Your task to perform on an android device: Is it going to rain this weekend? Image 0: 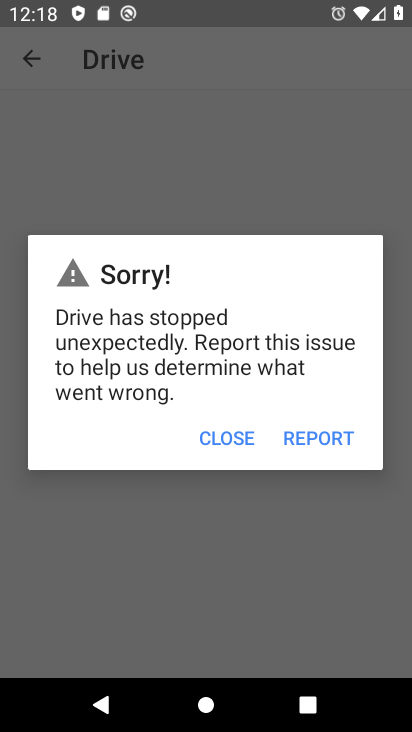
Step 0: press home button
Your task to perform on an android device: Is it going to rain this weekend? Image 1: 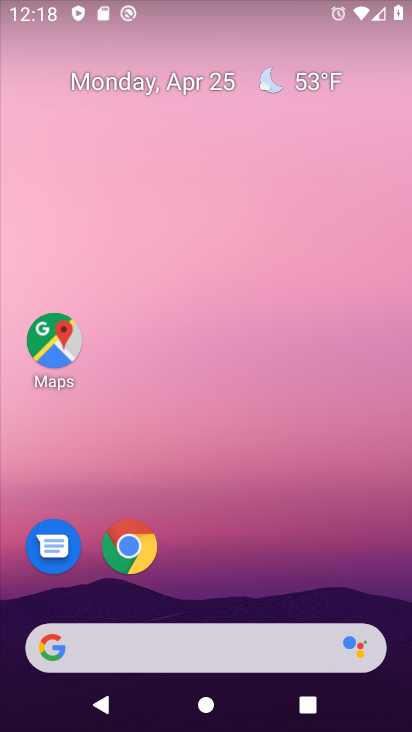
Step 1: drag from (208, 604) to (212, 182)
Your task to perform on an android device: Is it going to rain this weekend? Image 2: 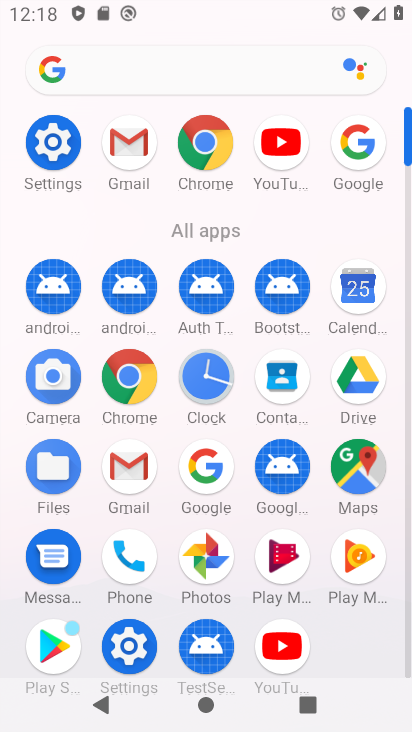
Step 2: click (208, 474)
Your task to perform on an android device: Is it going to rain this weekend? Image 3: 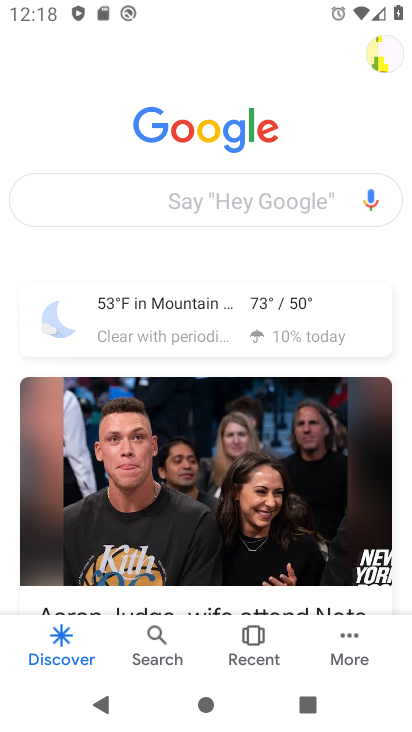
Step 3: click (178, 322)
Your task to perform on an android device: Is it going to rain this weekend? Image 4: 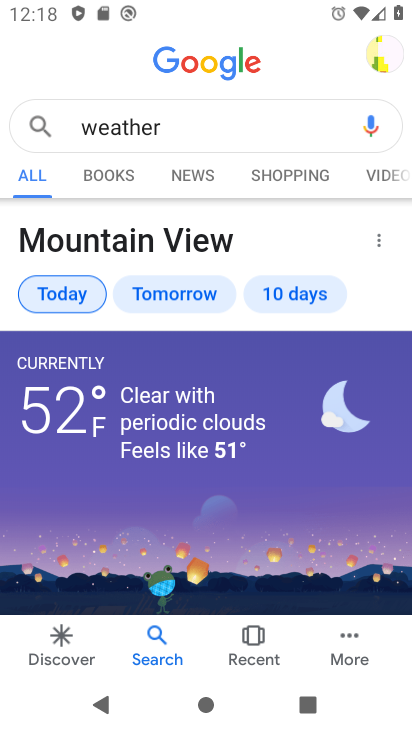
Step 4: click (282, 298)
Your task to perform on an android device: Is it going to rain this weekend? Image 5: 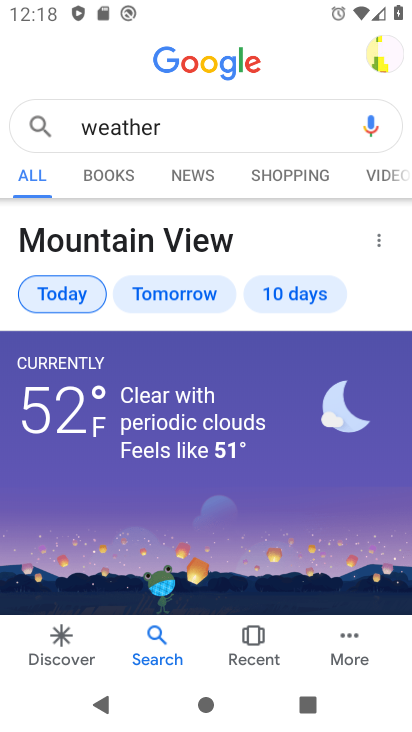
Step 5: click (289, 293)
Your task to perform on an android device: Is it going to rain this weekend? Image 6: 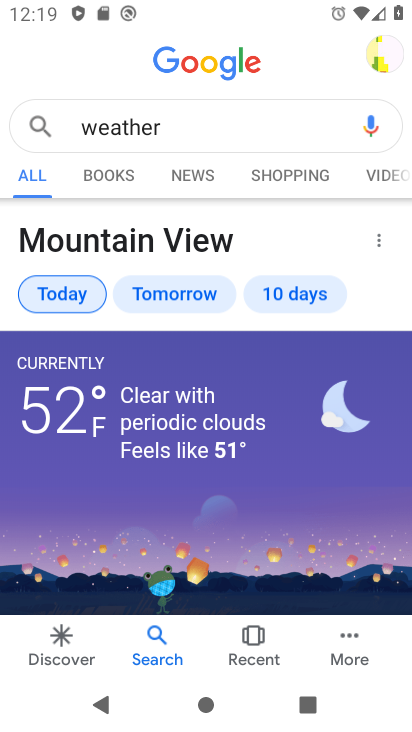
Step 6: click (283, 285)
Your task to perform on an android device: Is it going to rain this weekend? Image 7: 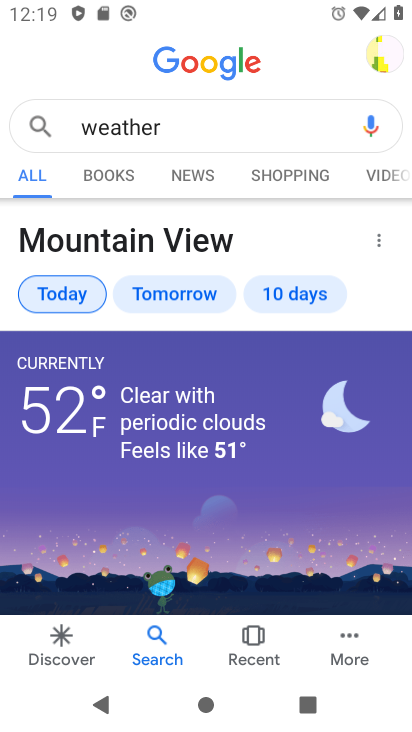
Step 7: click (290, 290)
Your task to perform on an android device: Is it going to rain this weekend? Image 8: 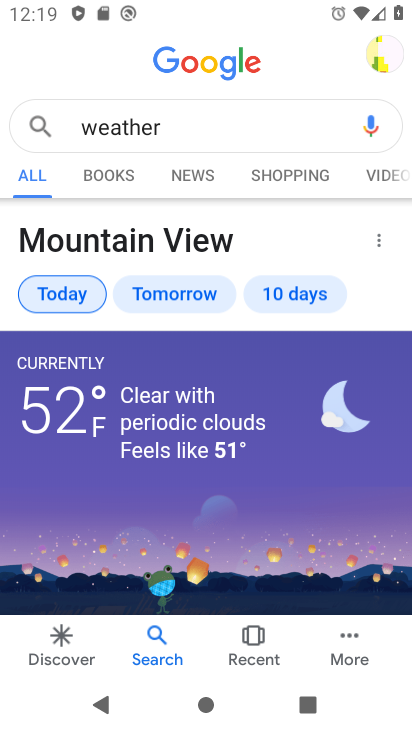
Step 8: task complete